Your task to perform on an android device: change timer sound Image 0: 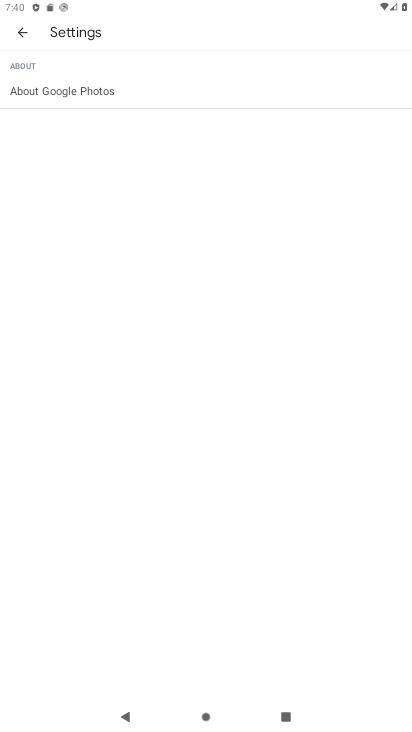
Step 0: press home button
Your task to perform on an android device: change timer sound Image 1: 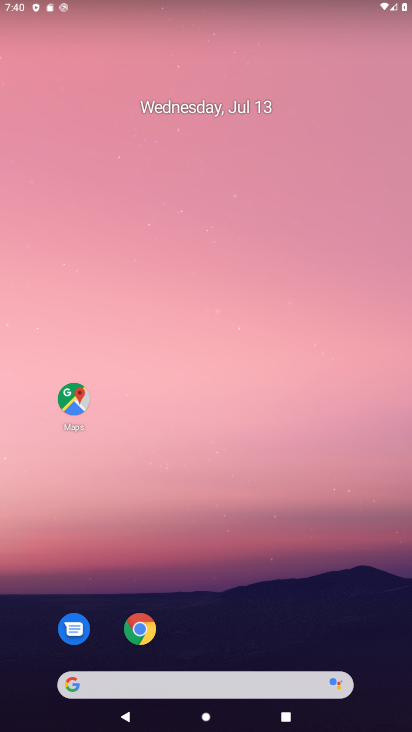
Step 1: drag from (265, 583) to (2, 638)
Your task to perform on an android device: change timer sound Image 2: 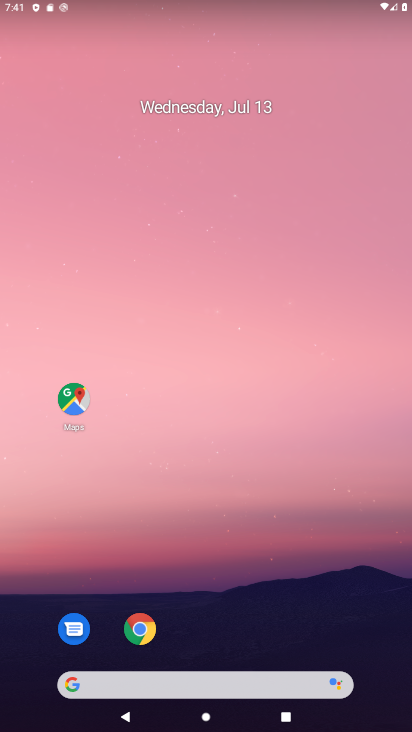
Step 2: drag from (347, 545) to (273, 43)
Your task to perform on an android device: change timer sound Image 3: 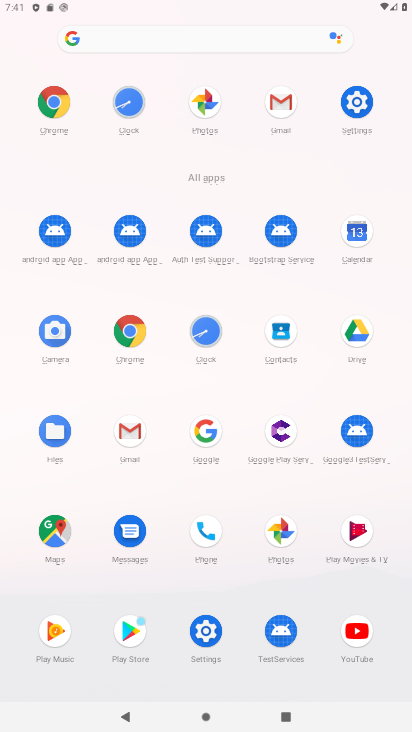
Step 3: click (208, 336)
Your task to perform on an android device: change timer sound Image 4: 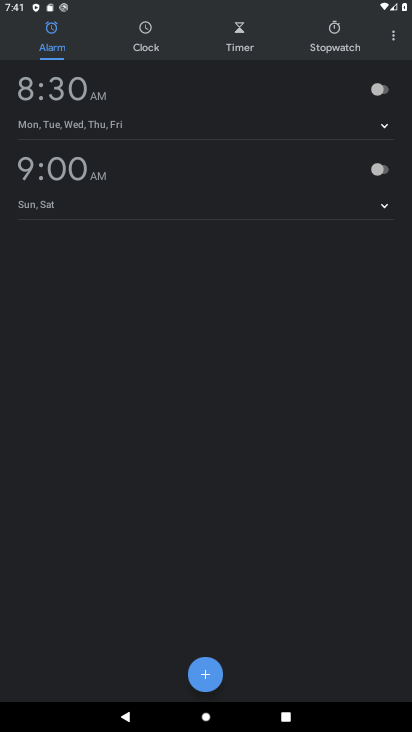
Step 4: click (396, 34)
Your task to perform on an android device: change timer sound Image 5: 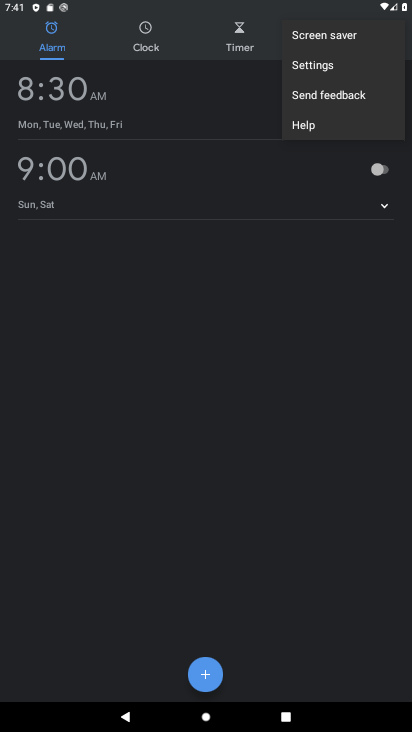
Step 5: click (295, 58)
Your task to perform on an android device: change timer sound Image 6: 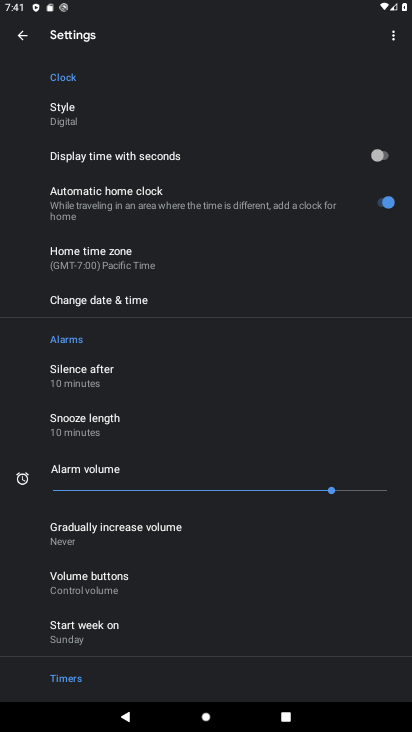
Step 6: drag from (192, 572) to (261, 151)
Your task to perform on an android device: change timer sound Image 7: 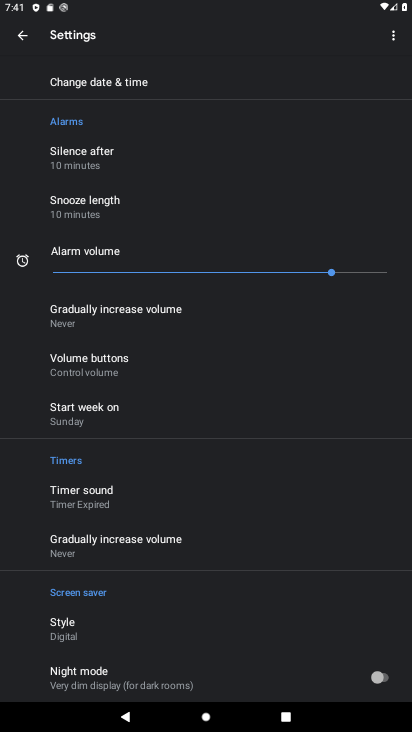
Step 7: click (92, 505)
Your task to perform on an android device: change timer sound Image 8: 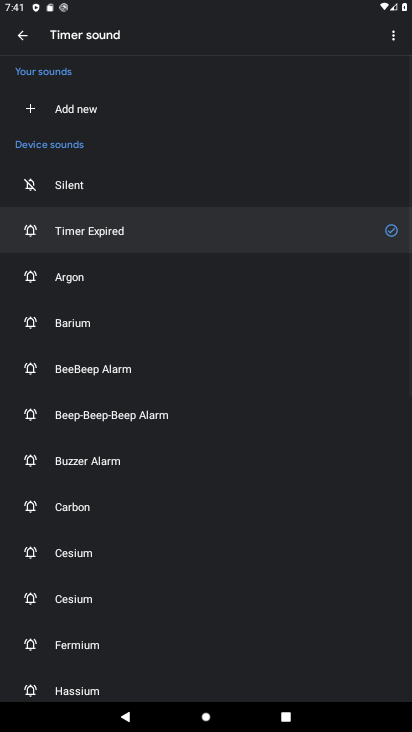
Step 8: click (72, 287)
Your task to perform on an android device: change timer sound Image 9: 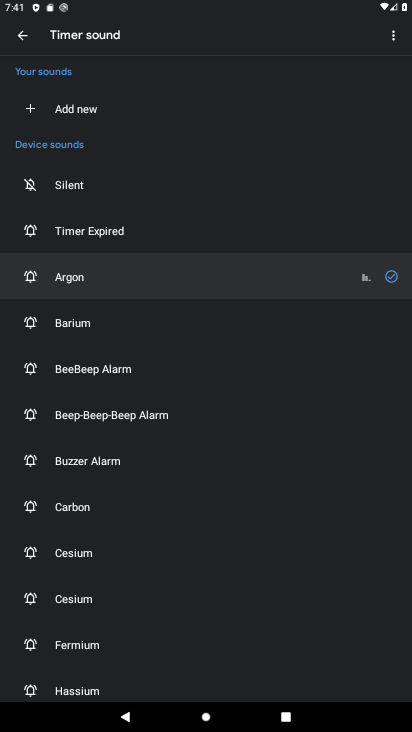
Step 9: task complete